Your task to perform on an android device: Show the shopping cart on costco. Add "macbook pro 15 inch" to the cart on costco, then select checkout. Image 0: 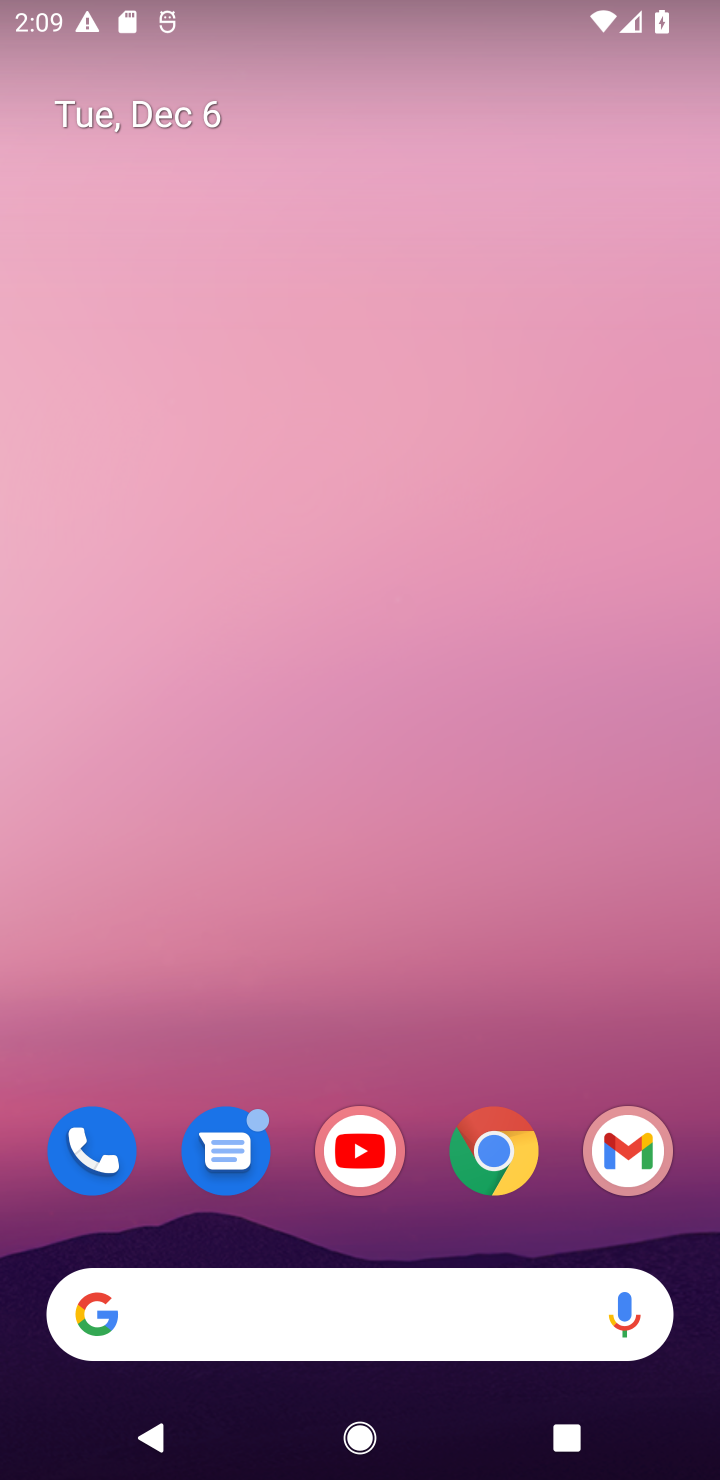
Step 0: click (504, 1156)
Your task to perform on an android device: Show the shopping cart on costco. Add "macbook pro 15 inch" to the cart on costco, then select checkout. Image 1: 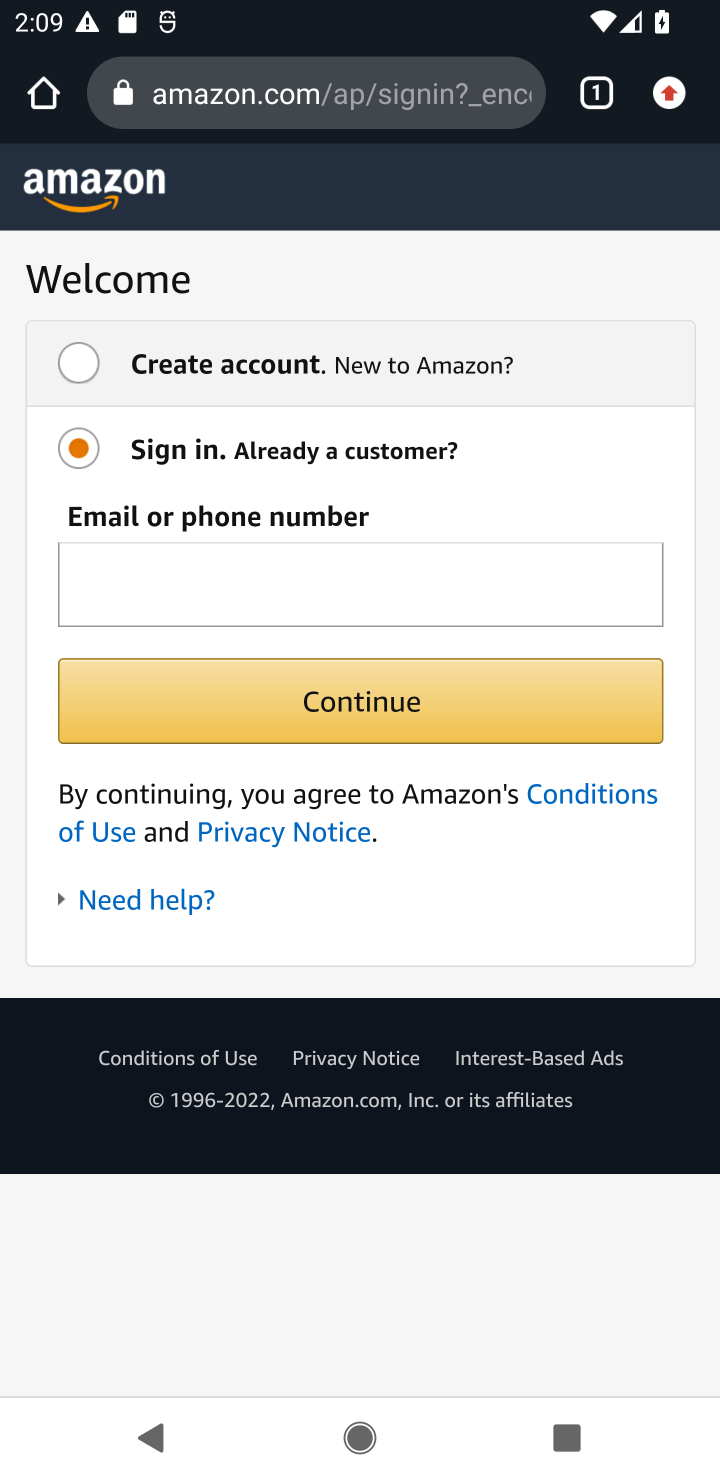
Step 1: click (251, 111)
Your task to perform on an android device: Show the shopping cart on costco. Add "macbook pro 15 inch" to the cart on costco, then select checkout. Image 2: 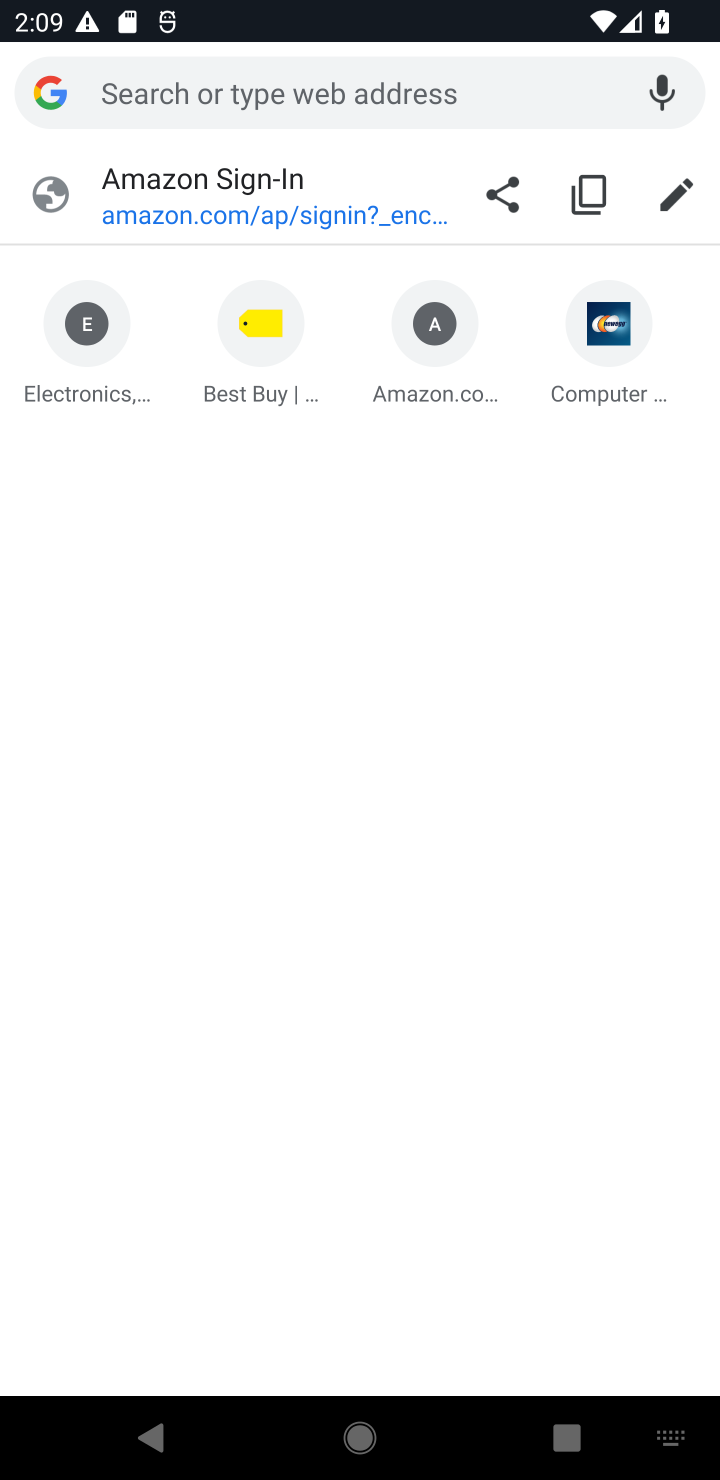
Step 2: type "costco.com"
Your task to perform on an android device: Show the shopping cart on costco. Add "macbook pro 15 inch" to the cart on costco, then select checkout. Image 3: 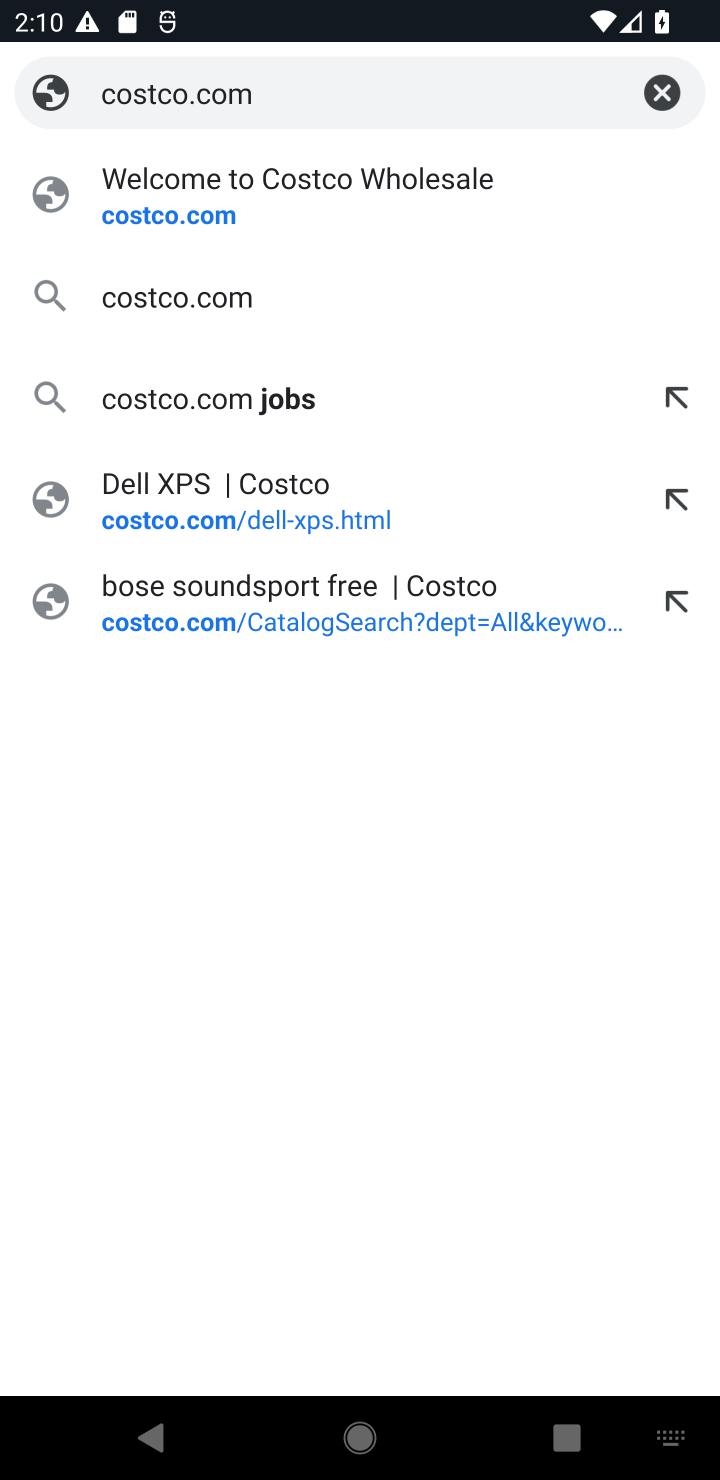
Step 3: click (151, 213)
Your task to perform on an android device: Show the shopping cart on costco. Add "macbook pro 15 inch" to the cart on costco, then select checkout. Image 4: 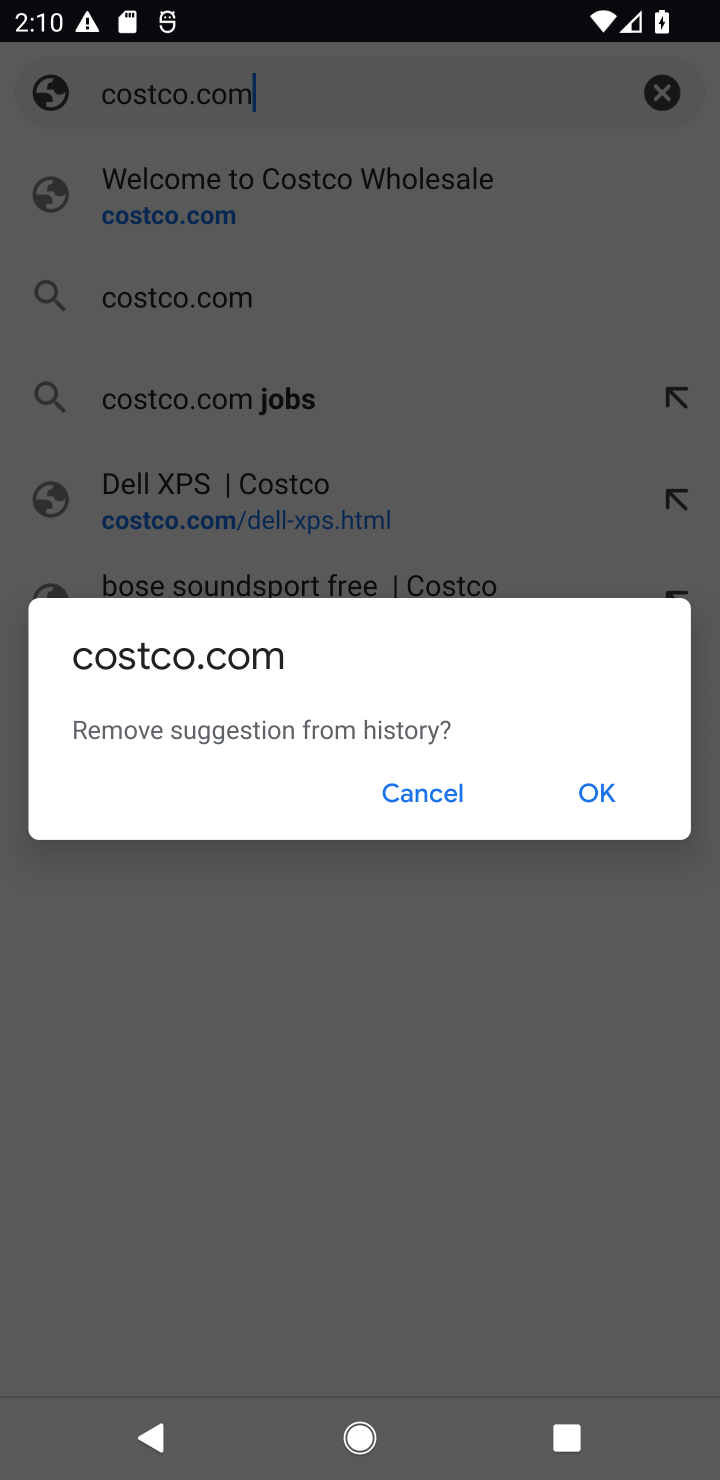
Step 4: click (391, 790)
Your task to perform on an android device: Show the shopping cart on costco. Add "macbook pro 15 inch" to the cart on costco, then select checkout. Image 5: 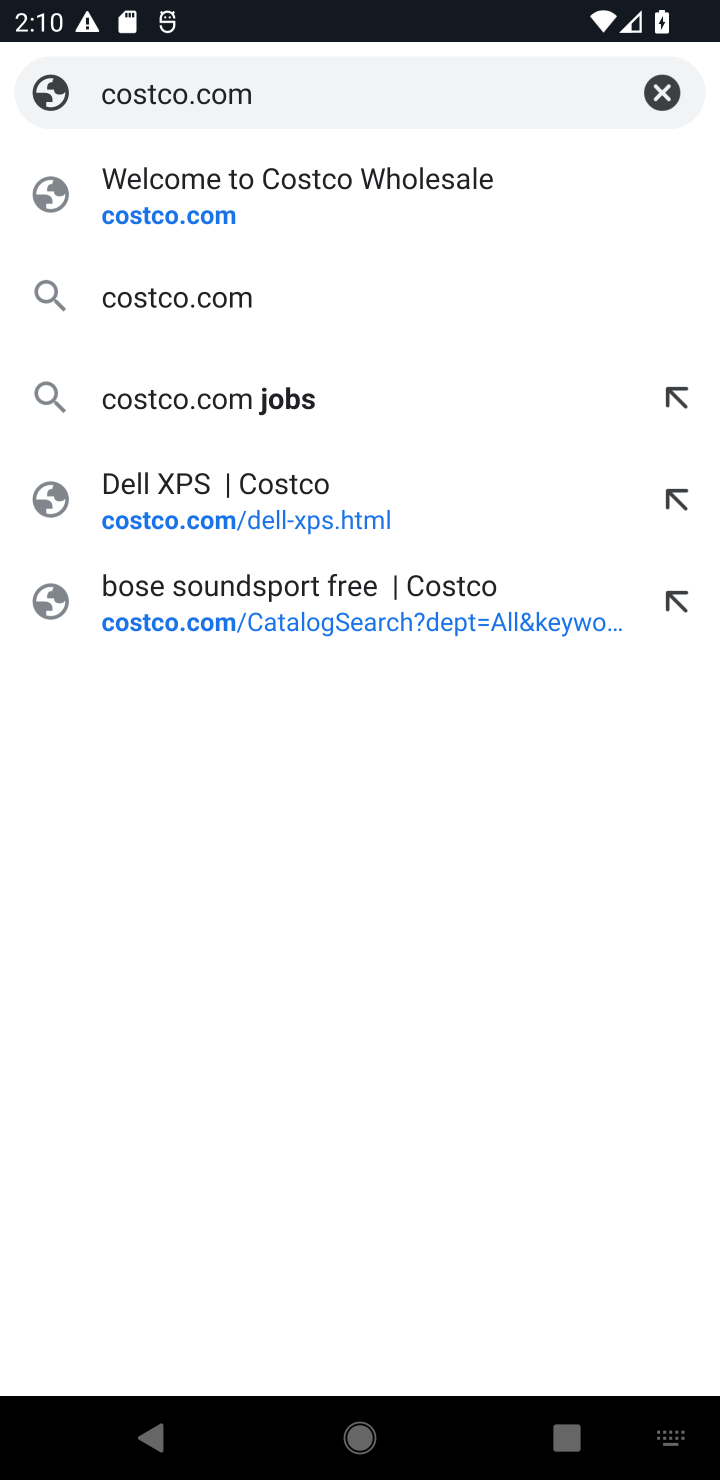
Step 5: click (195, 209)
Your task to perform on an android device: Show the shopping cart on costco. Add "macbook pro 15 inch" to the cart on costco, then select checkout. Image 6: 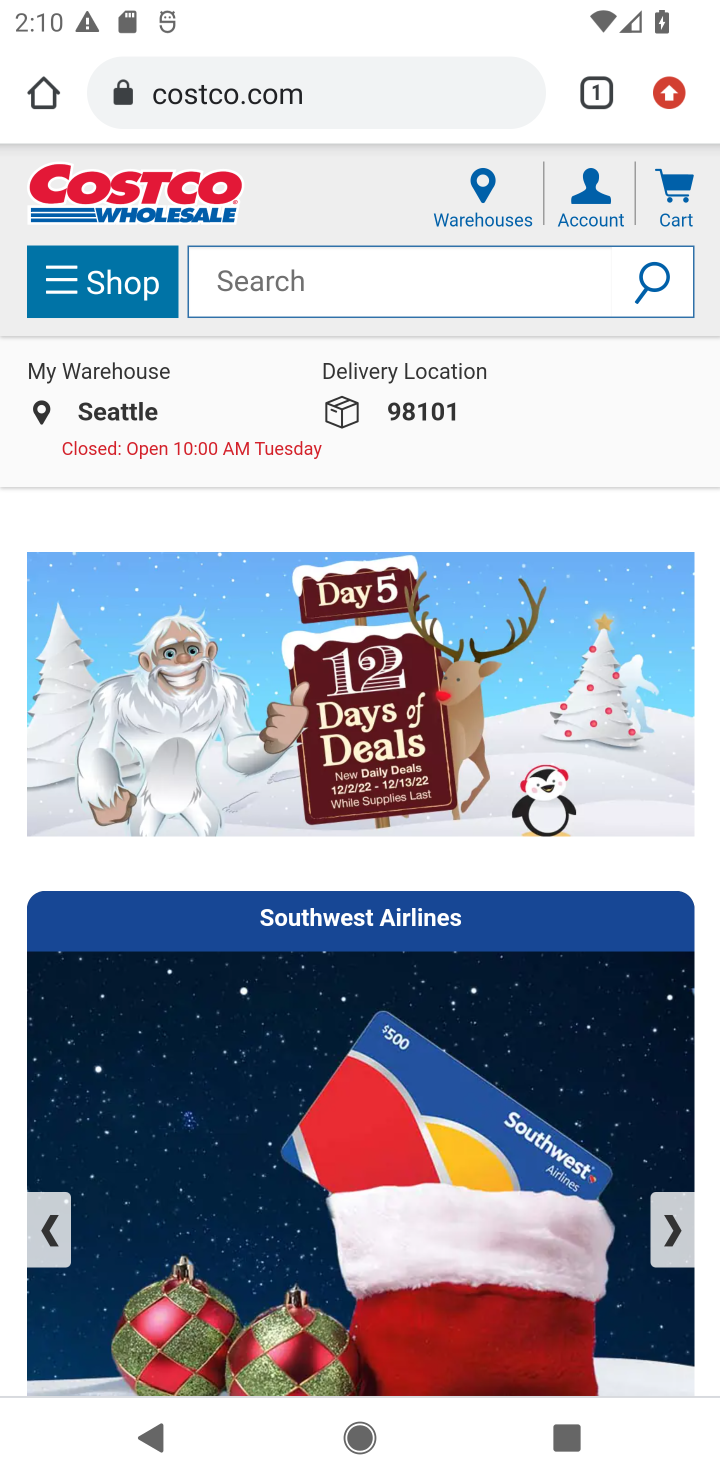
Step 6: click (677, 207)
Your task to perform on an android device: Show the shopping cart on costco. Add "macbook pro 15 inch" to the cart on costco, then select checkout. Image 7: 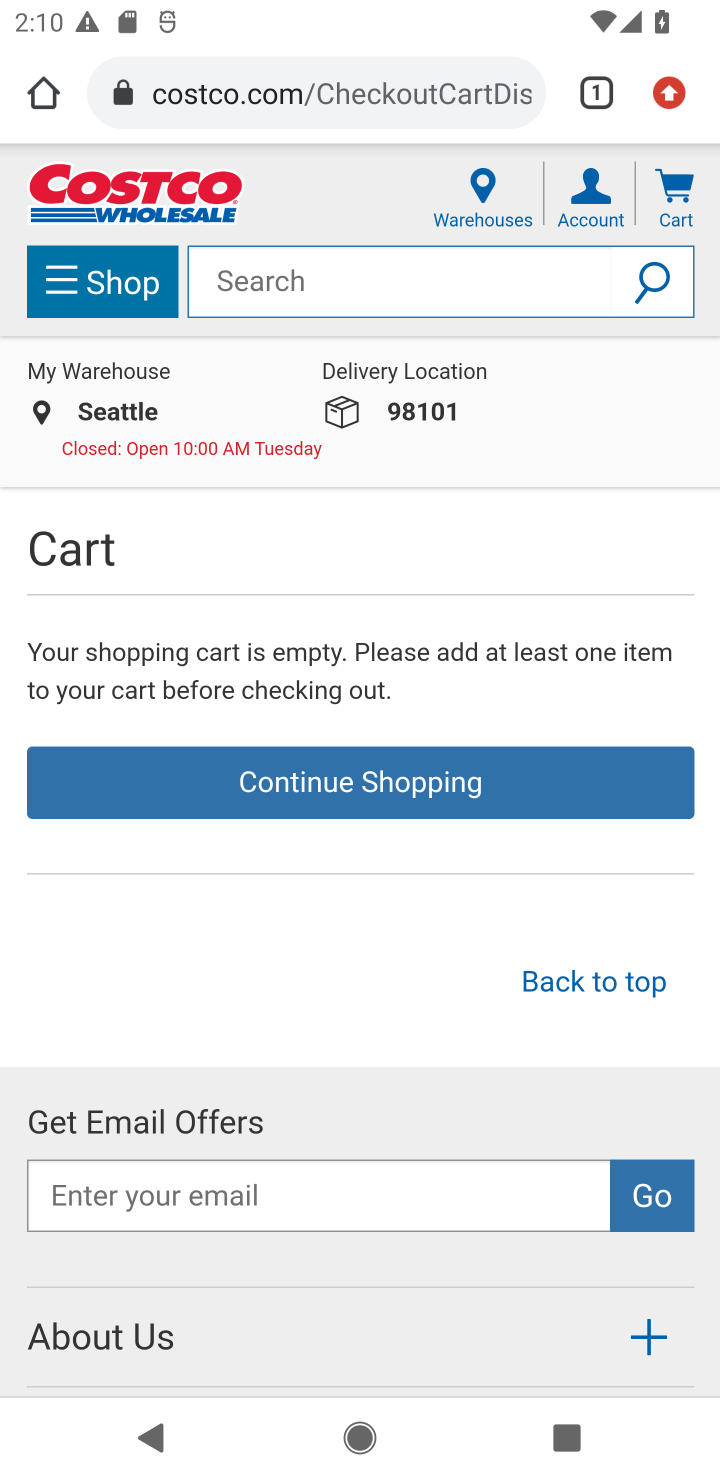
Step 7: click (277, 292)
Your task to perform on an android device: Show the shopping cart on costco. Add "macbook pro 15 inch" to the cart on costco, then select checkout. Image 8: 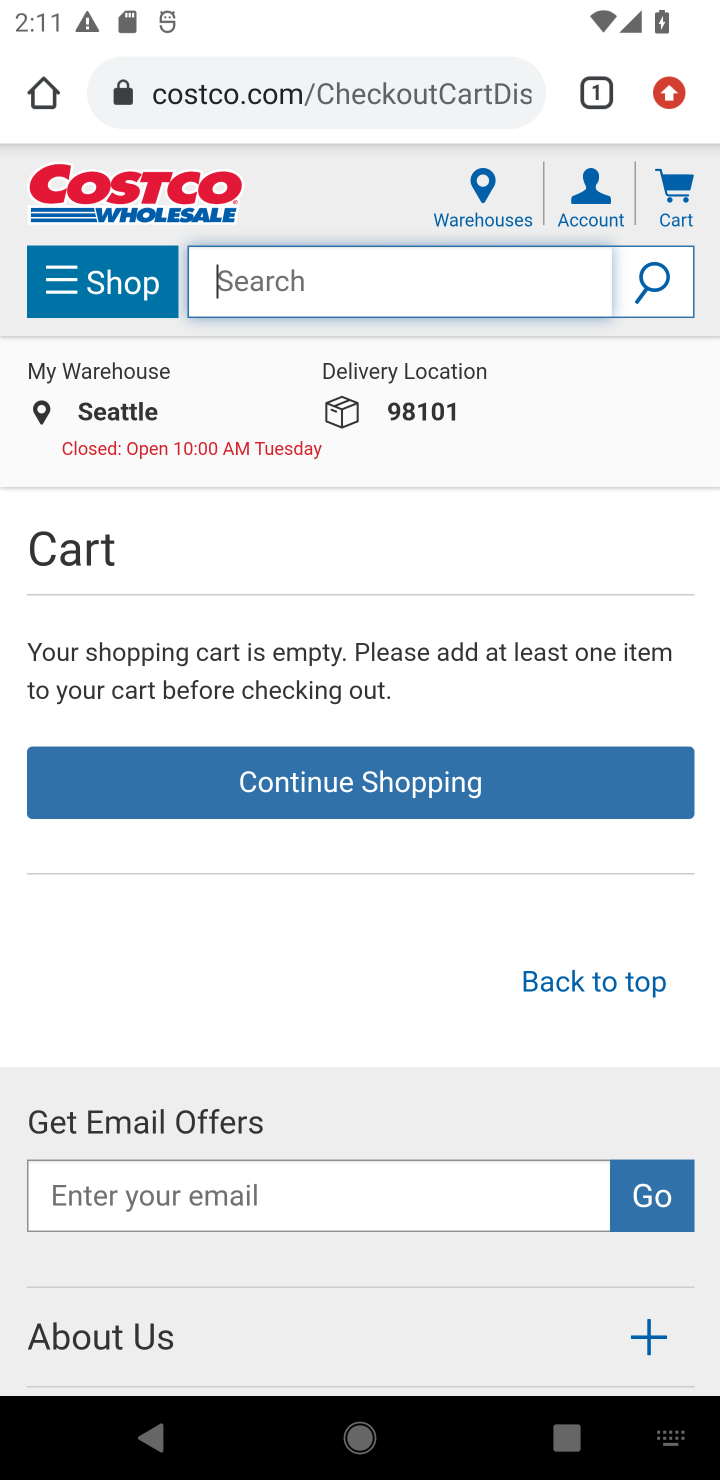
Step 8: type "macbook pro 15 inch"
Your task to perform on an android device: Show the shopping cart on costco. Add "macbook pro 15 inch" to the cart on costco, then select checkout. Image 9: 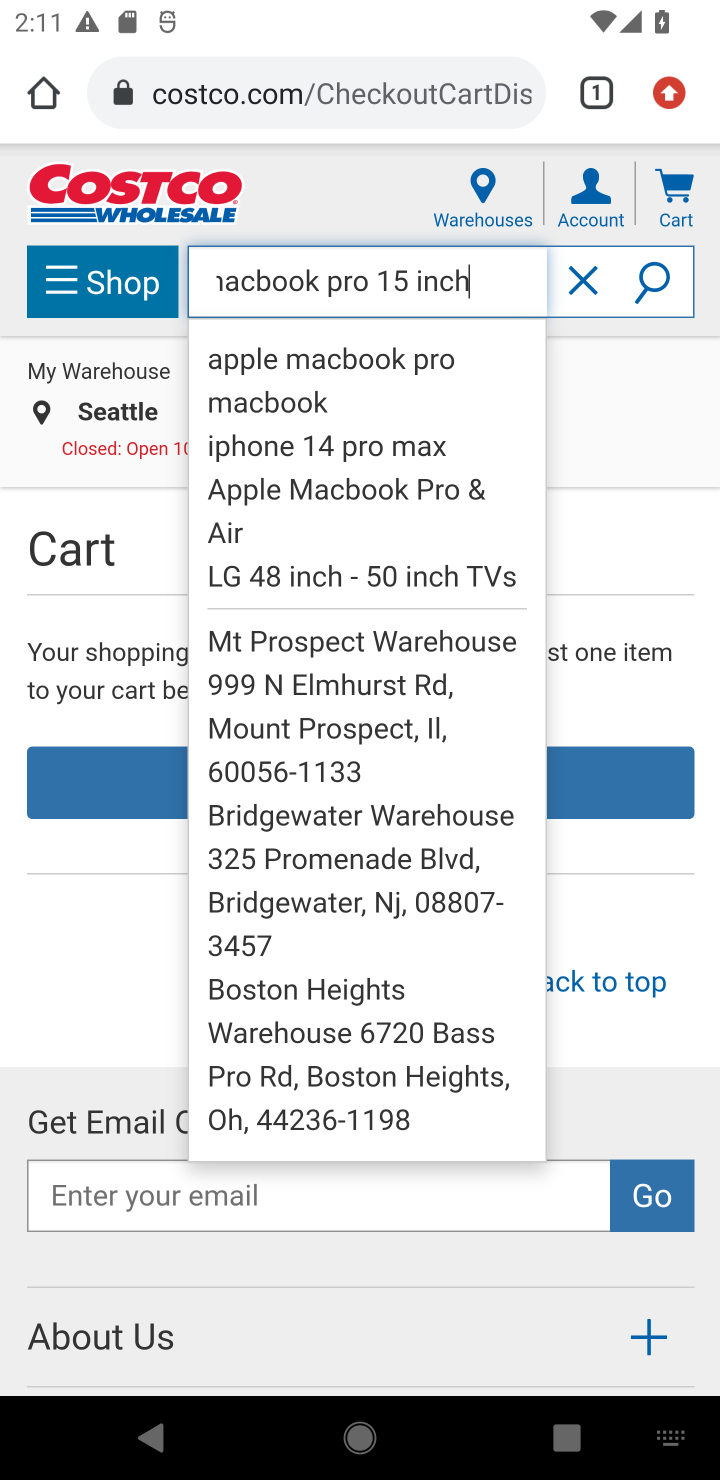
Step 9: click (641, 285)
Your task to perform on an android device: Show the shopping cart on costco. Add "macbook pro 15 inch" to the cart on costco, then select checkout. Image 10: 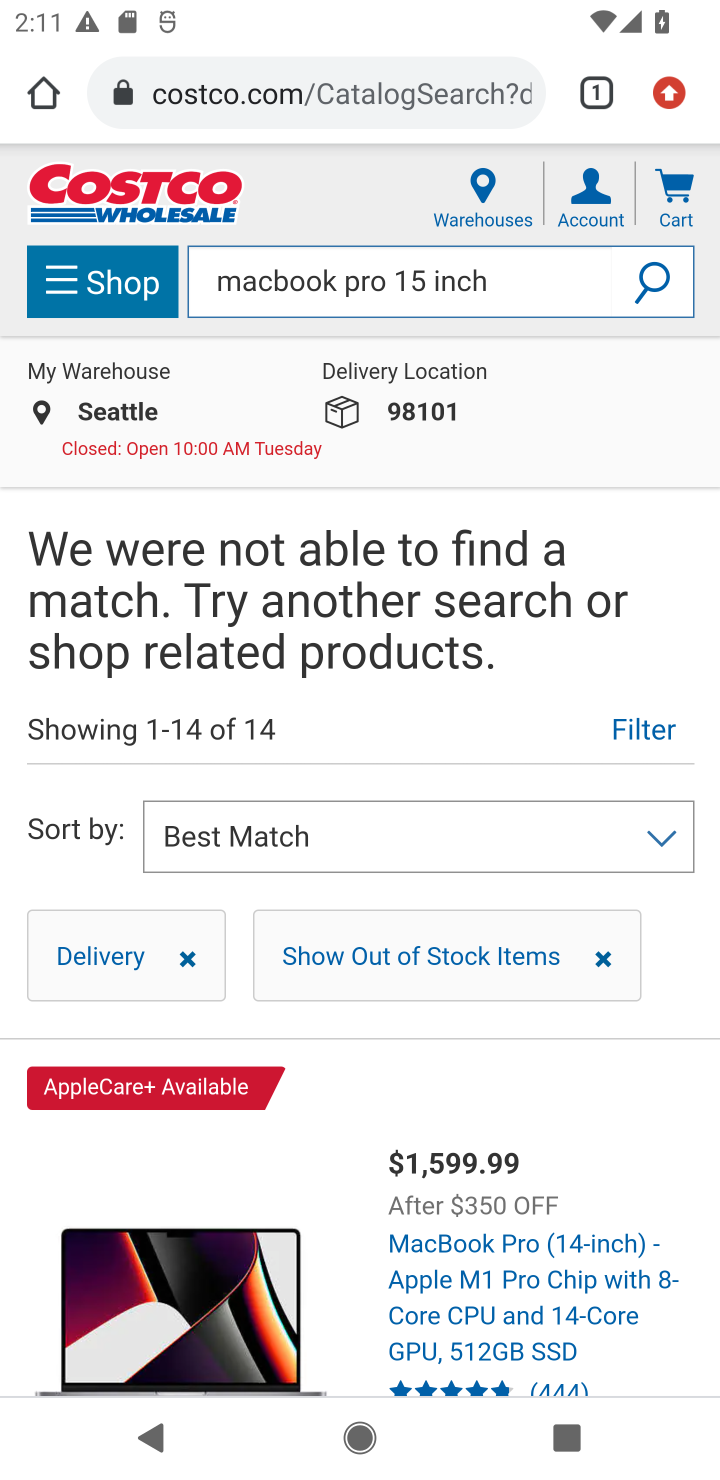
Step 10: task complete